Your task to perform on an android device: Go to Android settings Image 0: 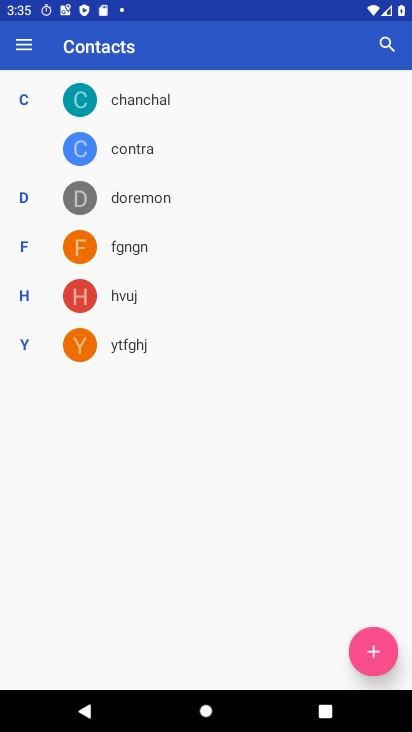
Step 0: press home button
Your task to perform on an android device: Go to Android settings Image 1: 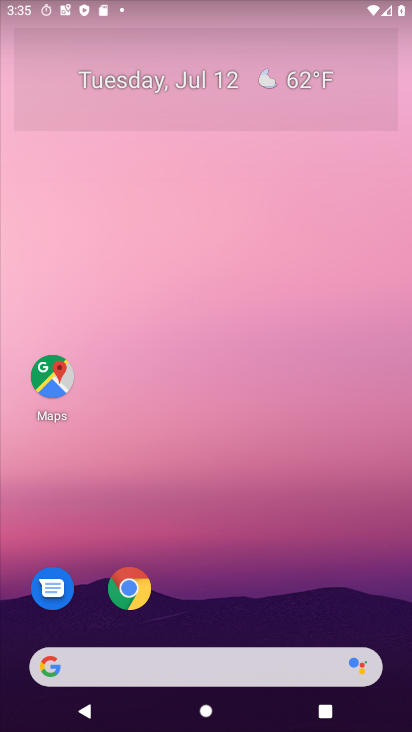
Step 1: drag from (202, 609) to (241, 15)
Your task to perform on an android device: Go to Android settings Image 2: 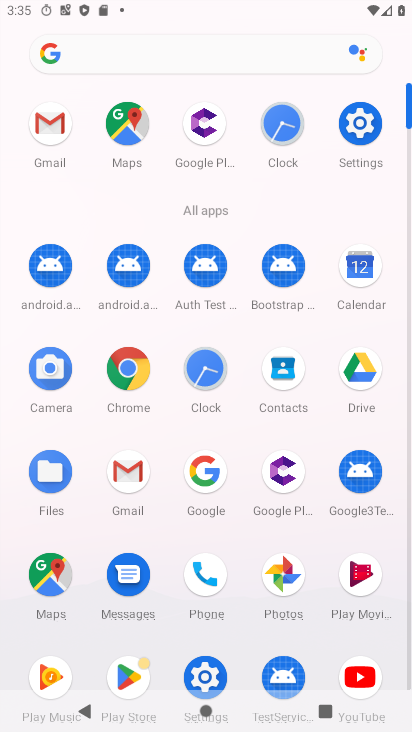
Step 2: click (367, 139)
Your task to perform on an android device: Go to Android settings Image 3: 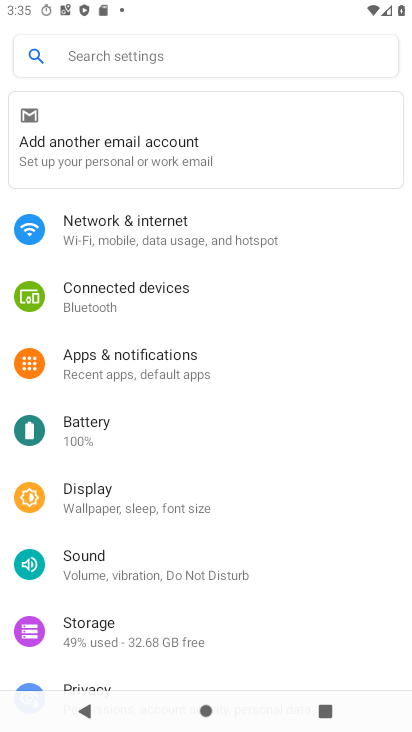
Step 3: drag from (147, 642) to (260, 19)
Your task to perform on an android device: Go to Android settings Image 4: 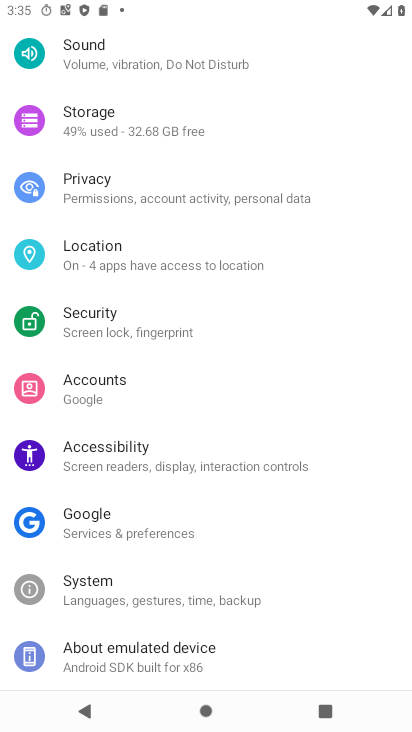
Step 4: click (112, 658)
Your task to perform on an android device: Go to Android settings Image 5: 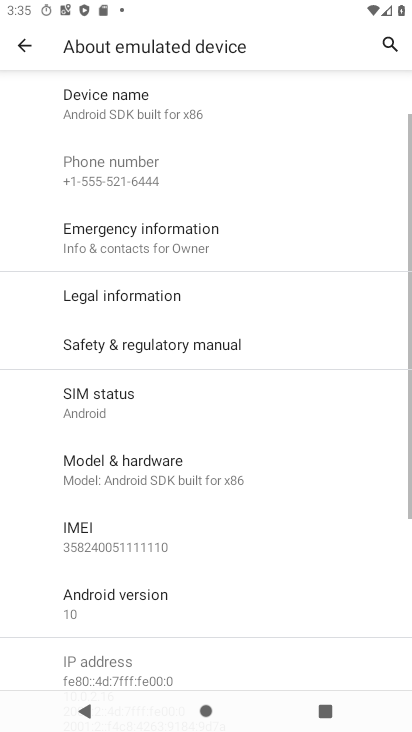
Step 5: click (123, 610)
Your task to perform on an android device: Go to Android settings Image 6: 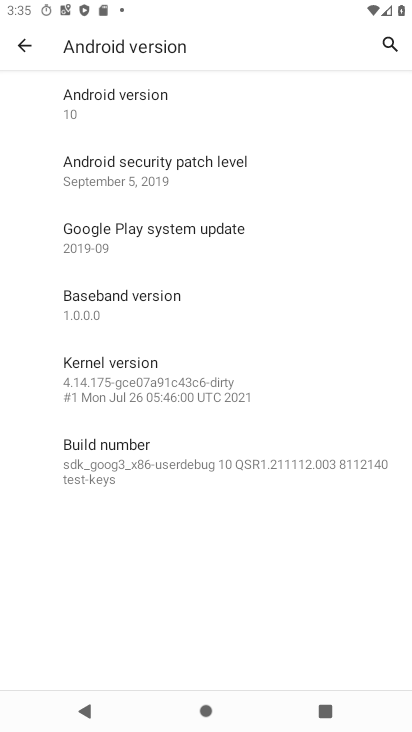
Step 6: task complete